Your task to perform on an android device: toggle notification dots Image 0: 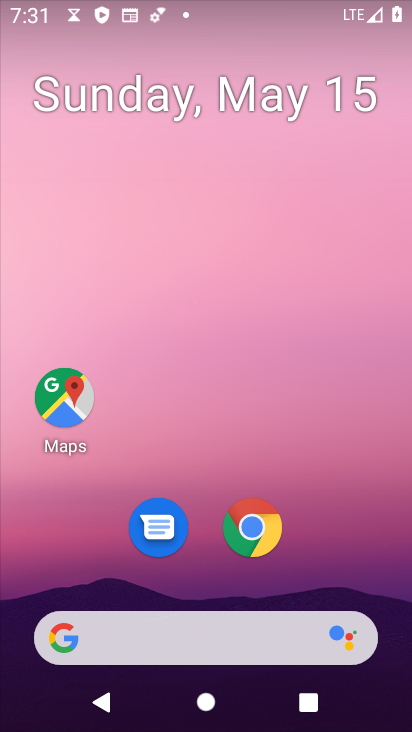
Step 0: drag from (378, 489) to (395, 132)
Your task to perform on an android device: toggle notification dots Image 1: 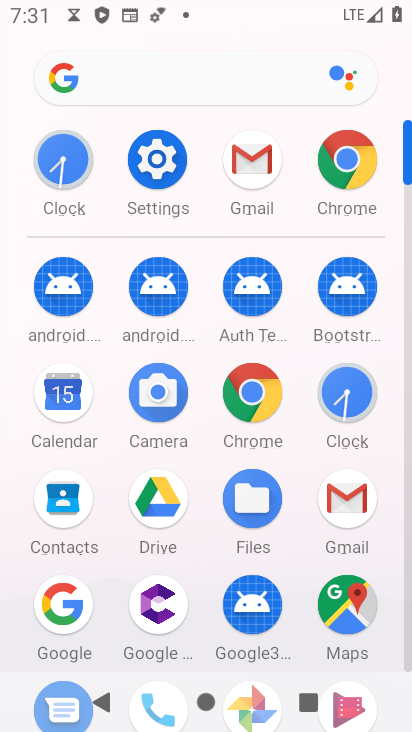
Step 1: click (162, 160)
Your task to perform on an android device: toggle notification dots Image 2: 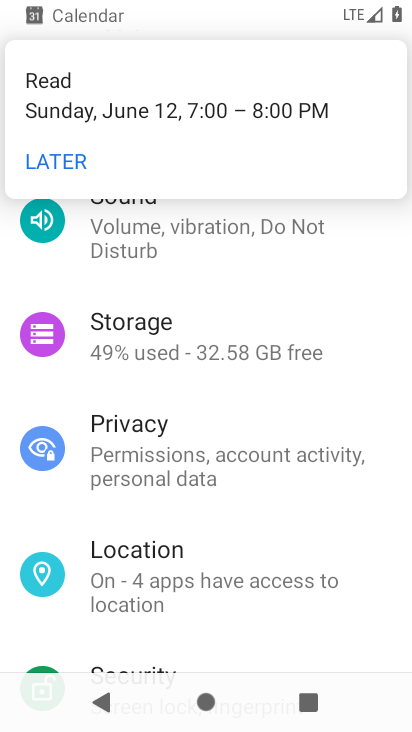
Step 2: drag from (157, 557) to (215, 235)
Your task to perform on an android device: toggle notification dots Image 3: 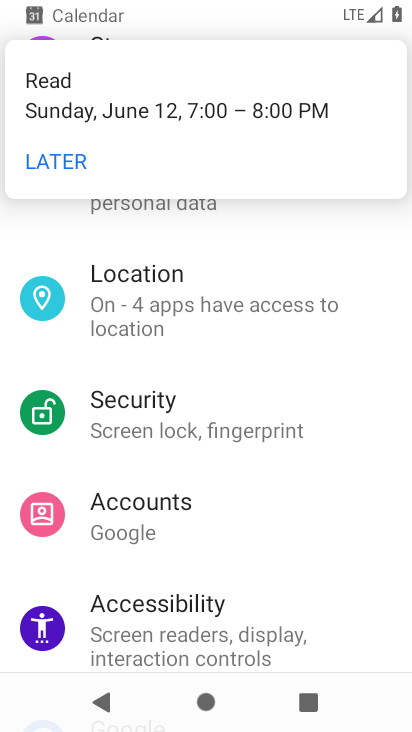
Step 3: drag from (214, 537) to (258, 263)
Your task to perform on an android device: toggle notification dots Image 4: 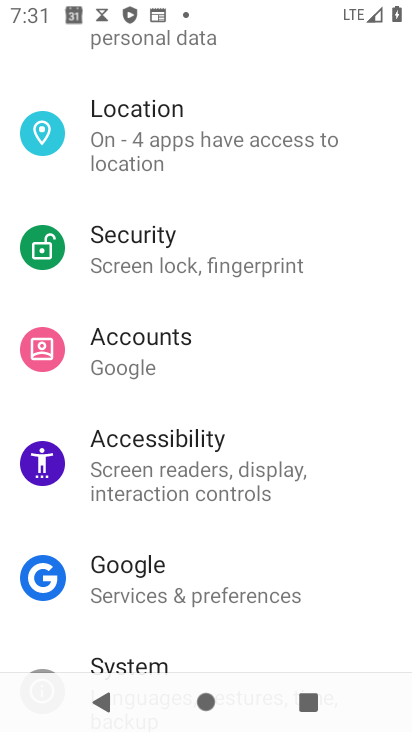
Step 4: click (258, 263)
Your task to perform on an android device: toggle notification dots Image 5: 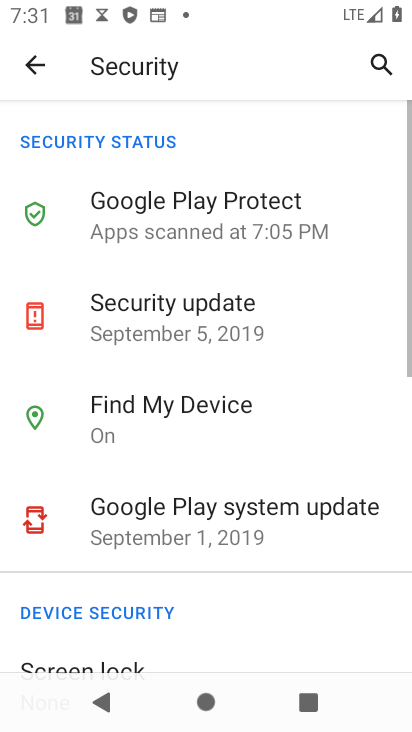
Step 5: drag from (267, 283) to (284, 681)
Your task to perform on an android device: toggle notification dots Image 6: 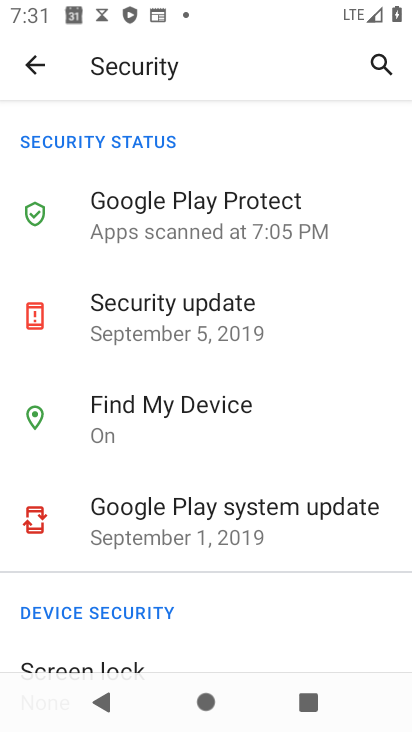
Step 6: click (24, 102)
Your task to perform on an android device: toggle notification dots Image 7: 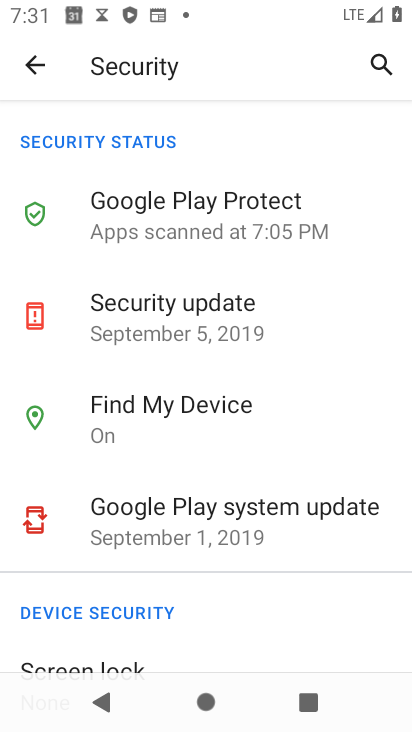
Step 7: click (32, 79)
Your task to perform on an android device: toggle notification dots Image 8: 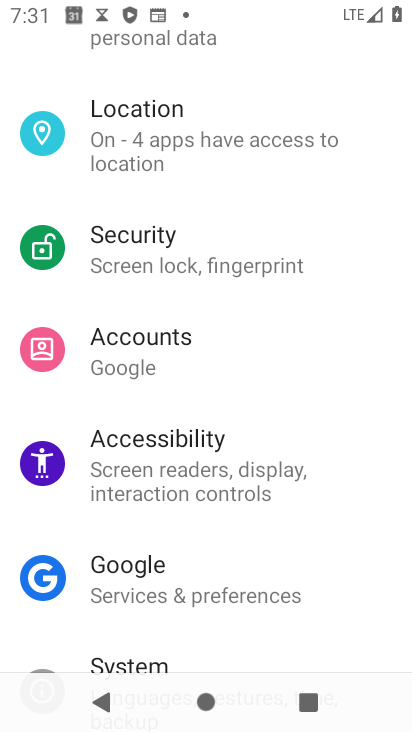
Step 8: drag from (216, 159) to (315, 603)
Your task to perform on an android device: toggle notification dots Image 9: 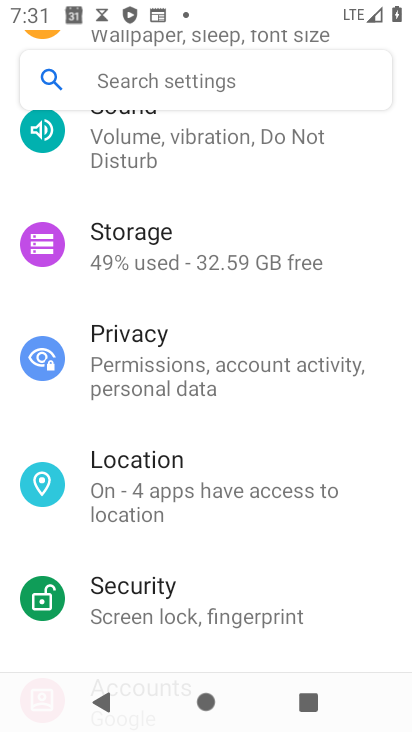
Step 9: drag from (351, 192) to (337, 666)
Your task to perform on an android device: toggle notification dots Image 10: 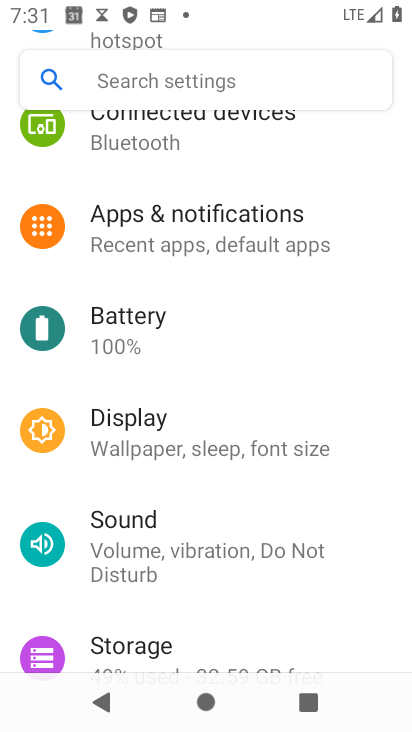
Step 10: drag from (271, 309) to (328, 711)
Your task to perform on an android device: toggle notification dots Image 11: 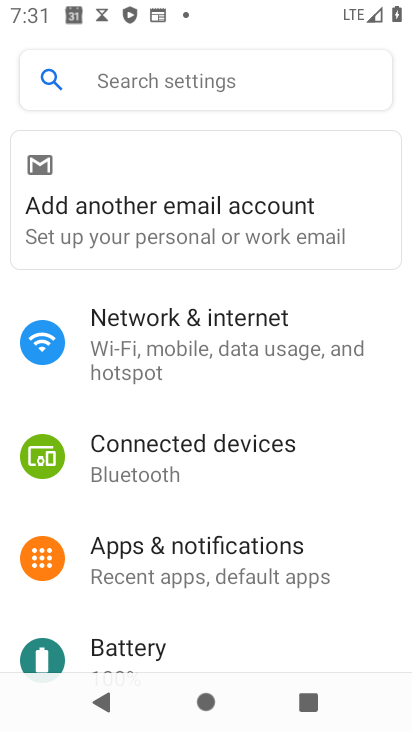
Step 11: click (236, 558)
Your task to perform on an android device: toggle notification dots Image 12: 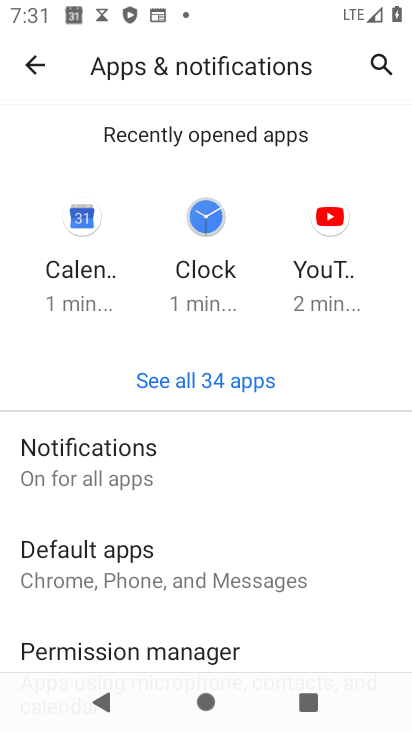
Step 12: click (110, 476)
Your task to perform on an android device: toggle notification dots Image 13: 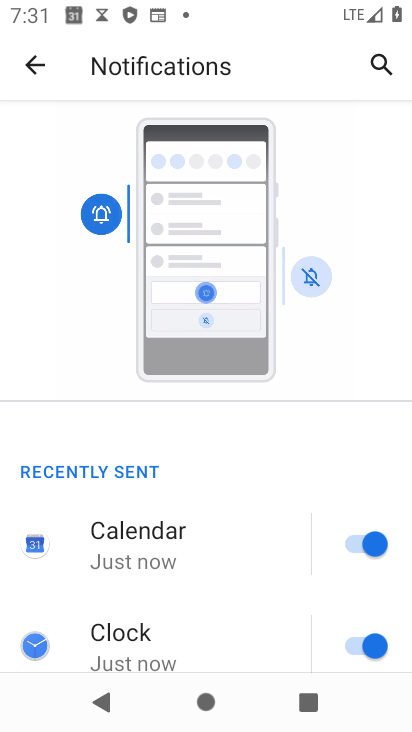
Step 13: drag from (158, 654) to (178, 295)
Your task to perform on an android device: toggle notification dots Image 14: 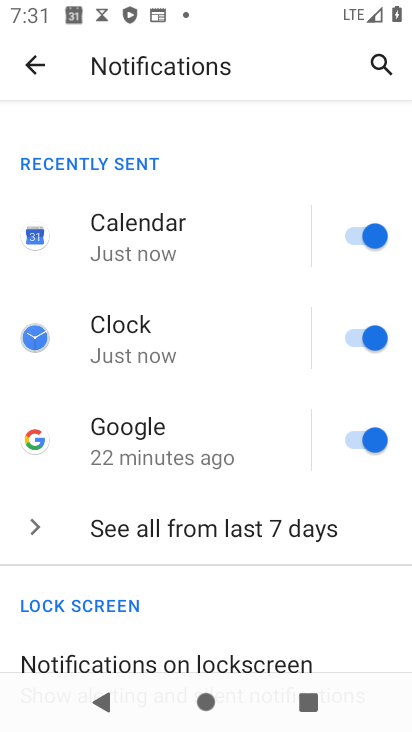
Step 14: drag from (205, 622) to (173, 242)
Your task to perform on an android device: toggle notification dots Image 15: 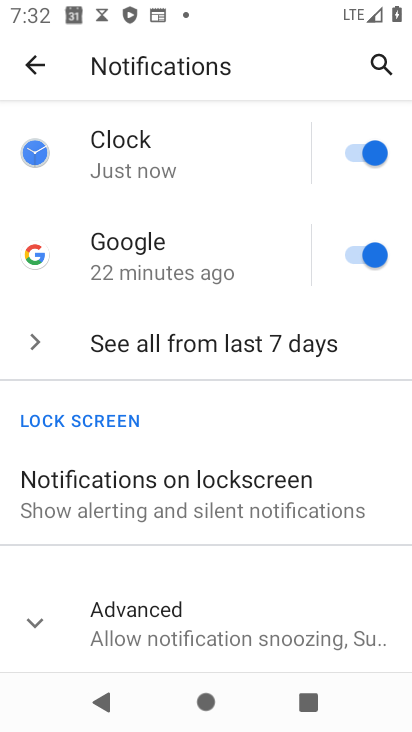
Step 15: click (190, 631)
Your task to perform on an android device: toggle notification dots Image 16: 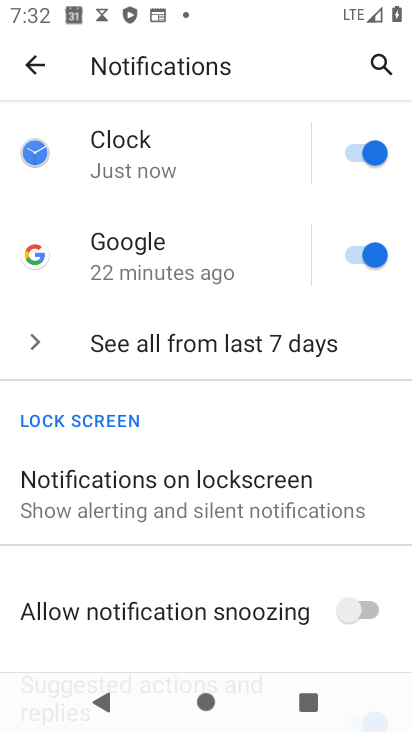
Step 16: drag from (190, 631) to (198, 375)
Your task to perform on an android device: toggle notification dots Image 17: 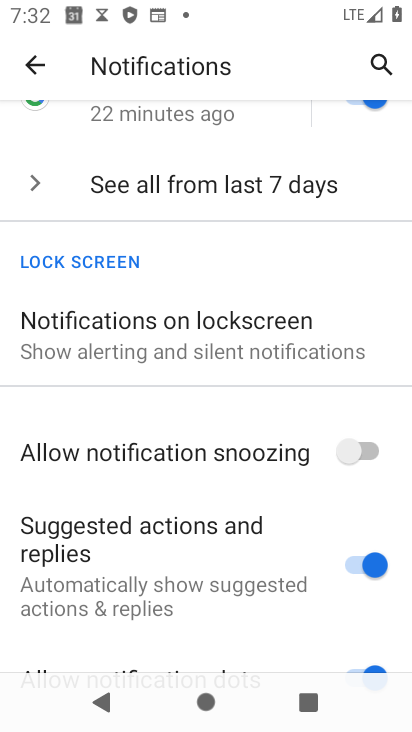
Step 17: drag from (213, 607) to (219, 313)
Your task to perform on an android device: toggle notification dots Image 18: 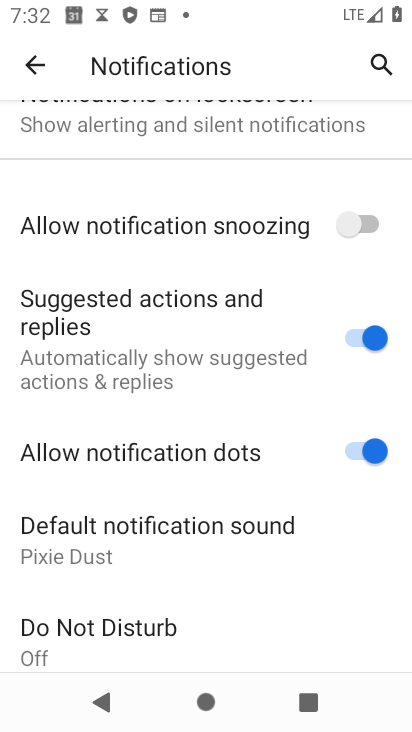
Step 18: click (368, 451)
Your task to perform on an android device: toggle notification dots Image 19: 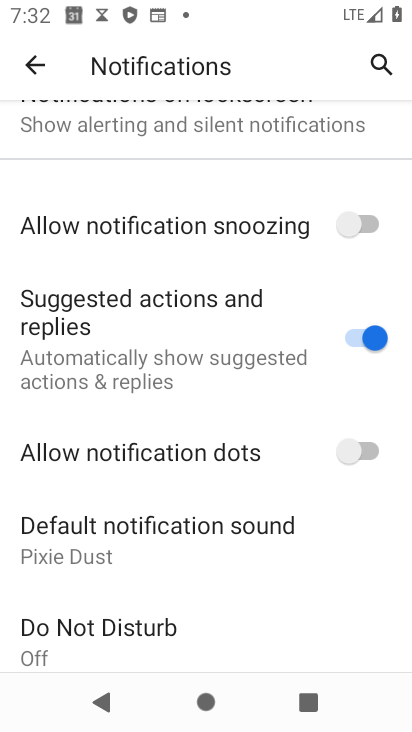
Step 19: task complete